Your task to perform on an android device: set an alarm Image 0: 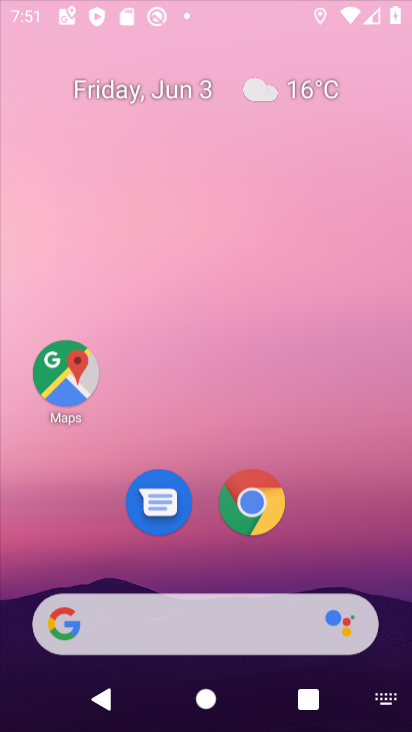
Step 0: drag from (334, 414) to (317, 716)
Your task to perform on an android device: set an alarm Image 1: 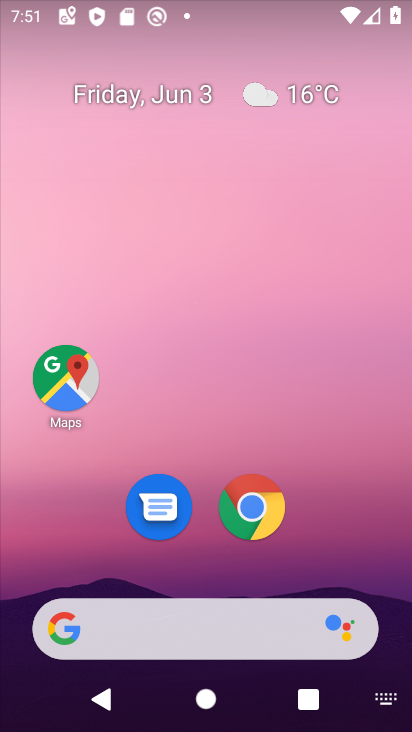
Step 1: drag from (278, 269) to (164, 74)
Your task to perform on an android device: set an alarm Image 2: 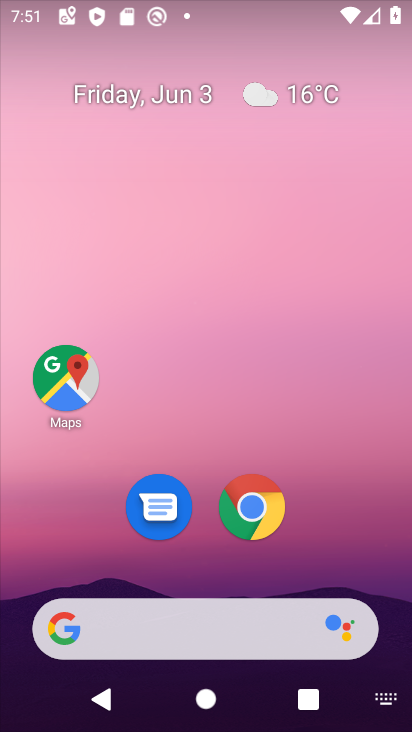
Step 2: drag from (312, 365) to (132, 31)
Your task to perform on an android device: set an alarm Image 3: 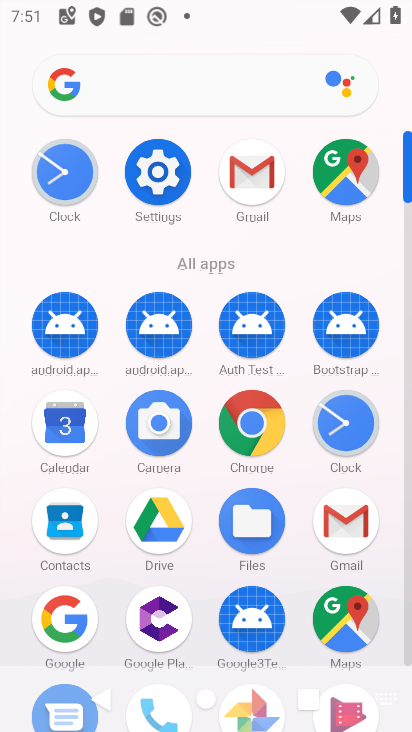
Step 3: click (83, 211)
Your task to perform on an android device: set an alarm Image 4: 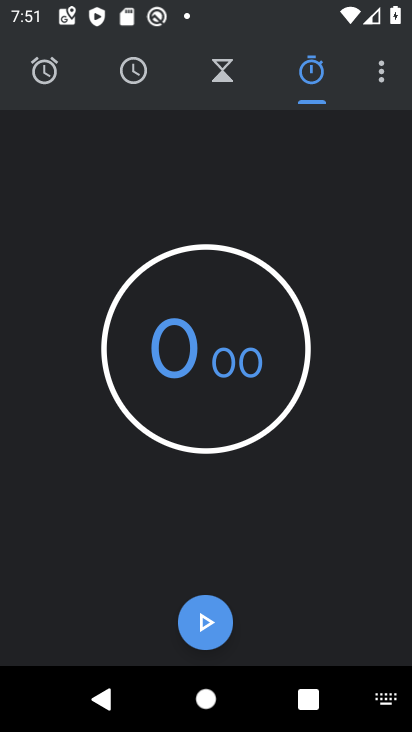
Step 4: click (51, 75)
Your task to perform on an android device: set an alarm Image 5: 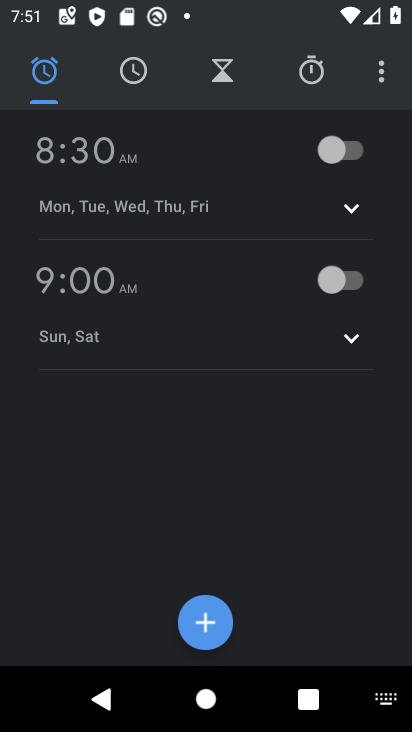
Step 5: click (368, 162)
Your task to perform on an android device: set an alarm Image 6: 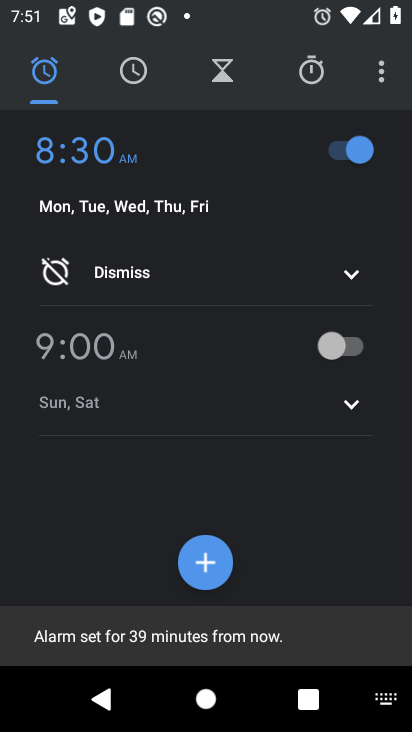
Step 6: task complete